Your task to perform on an android device: Open sound settings Image 0: 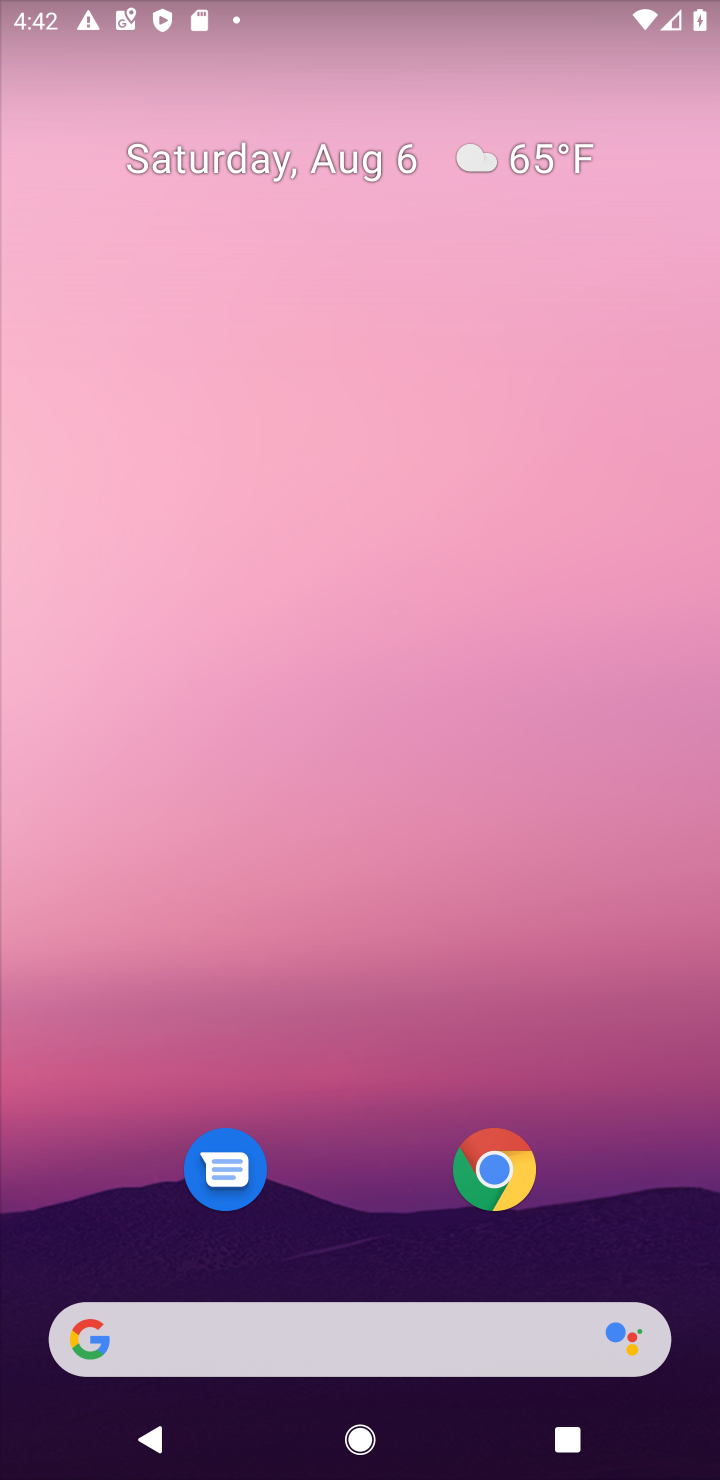
Step 0: drag from (255, 159) to (331, 1)
Your task to perform on an android device: Open sound settings Image 1: 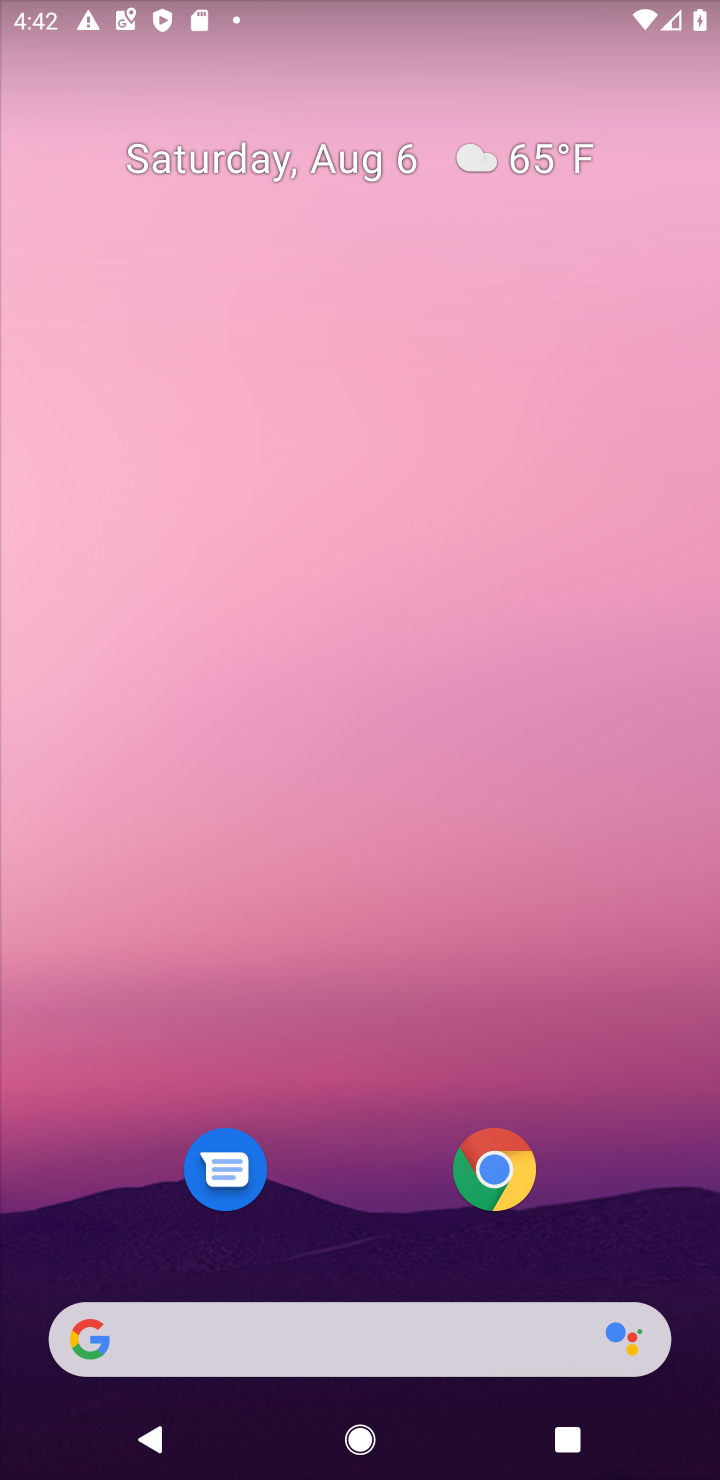
Step 1: drag from (347, 1242) to (473, 3)
Your task to perform on an android device: Open sound settings Image 2: 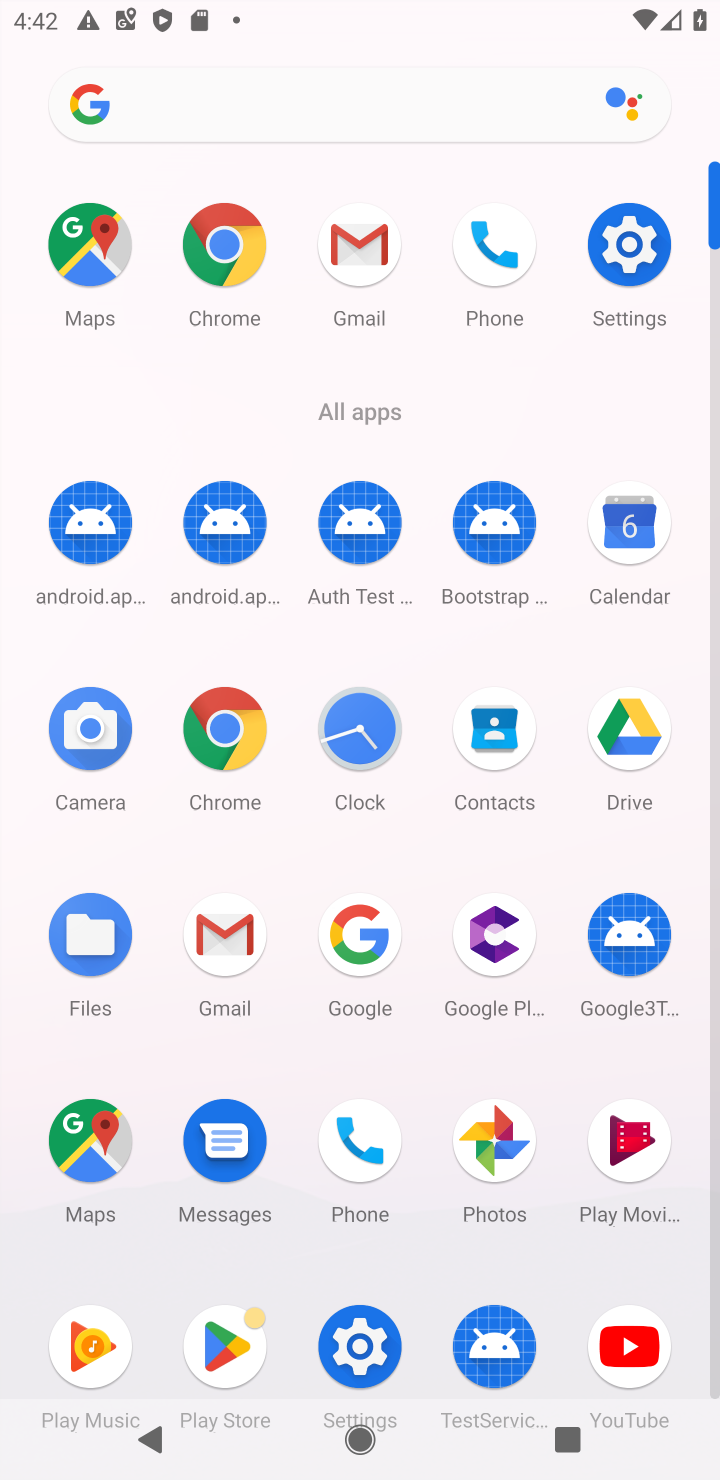
Step 2: click (641, 243)
Your task to perform on an android device: Open sound settings Image 3: 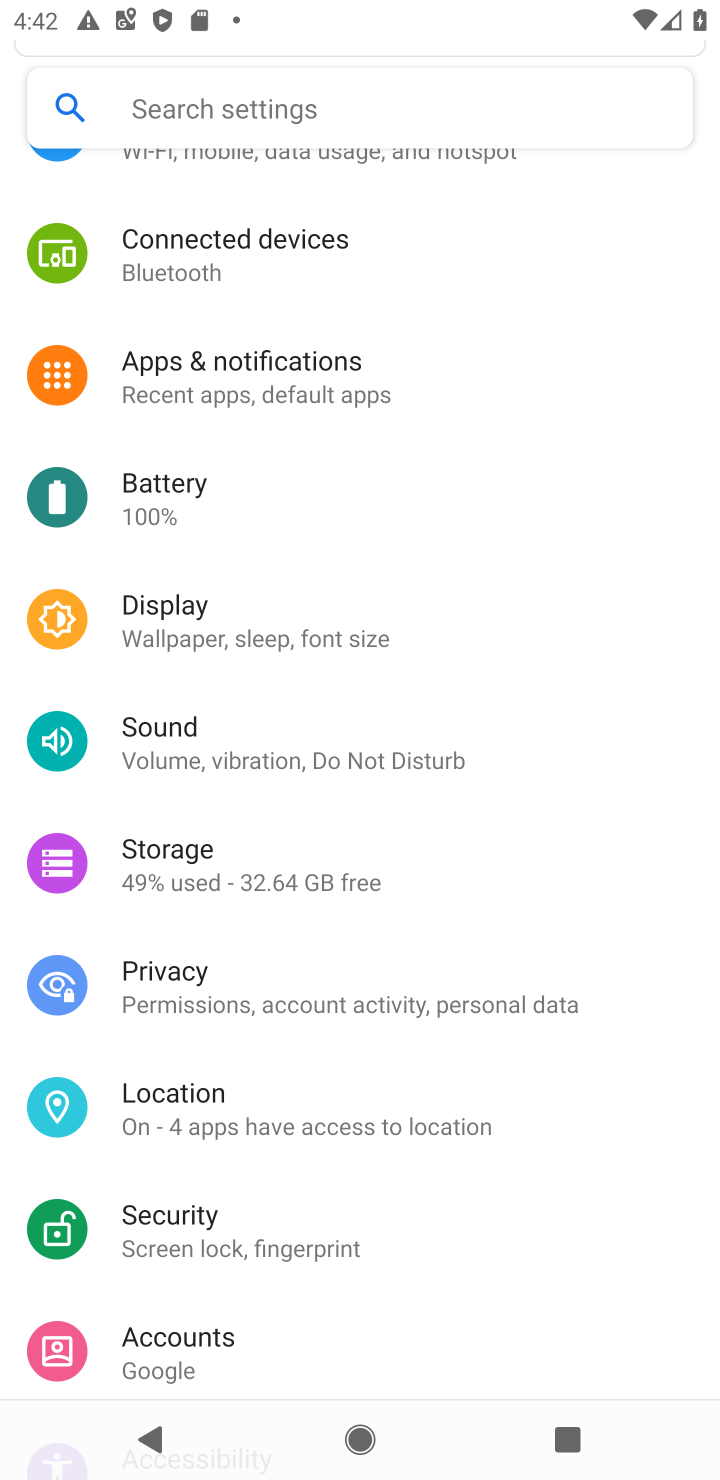
Step 3: click (233, 741)
Your task to perform on an android device: Open sound settings Image 4: 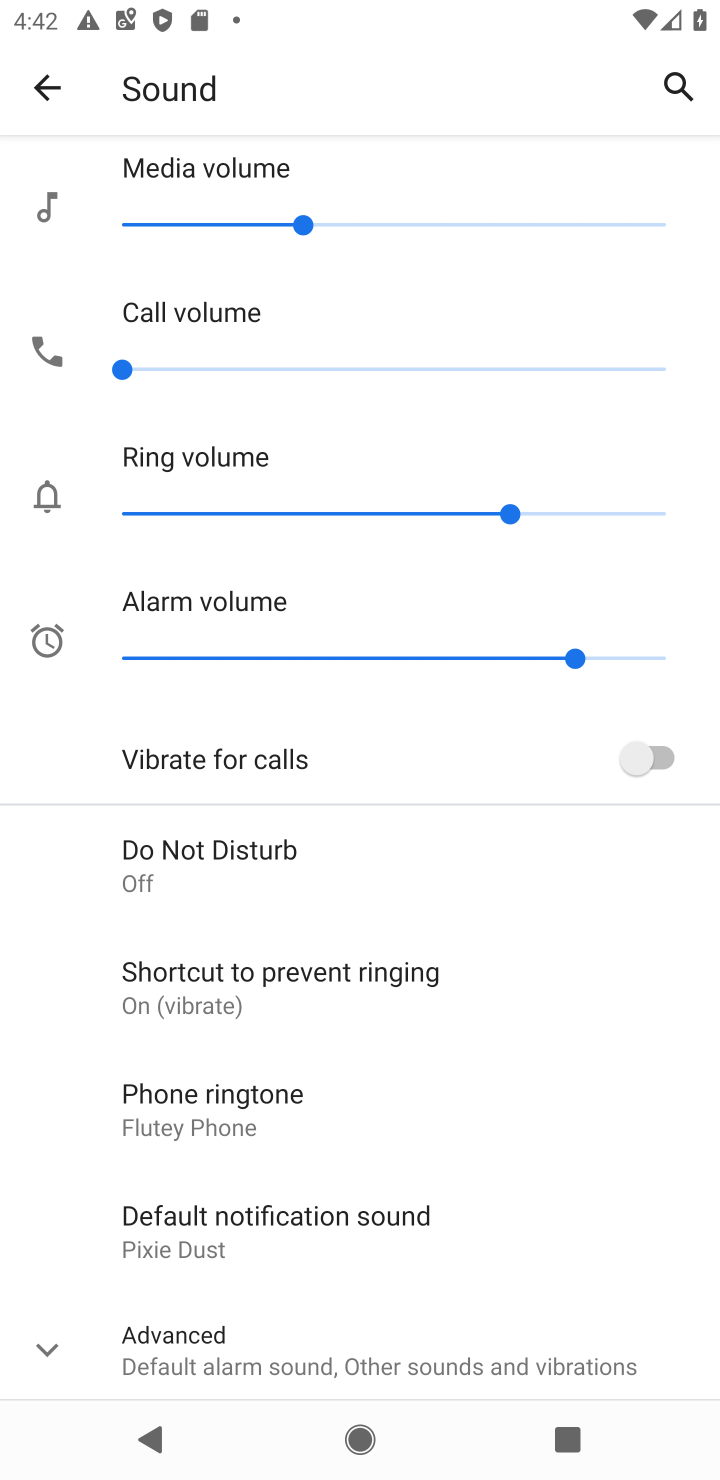
Step 4: task complete